Your task to perform on an android device: Open Google Chrome Image 0: 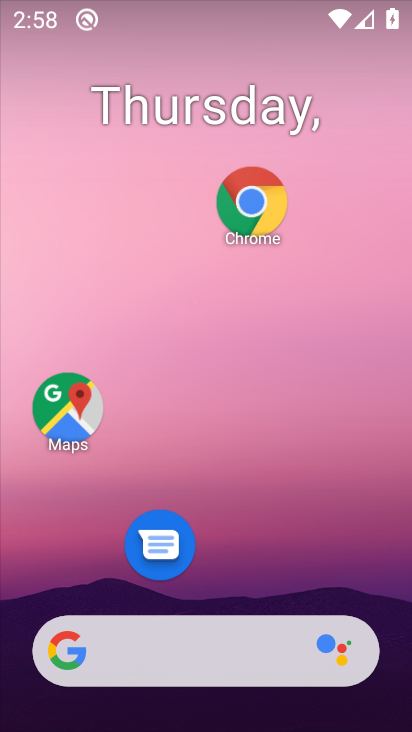
Step 0: click (237, 207)
Your task to perform on an android device: Open Google Chrome Image 1: 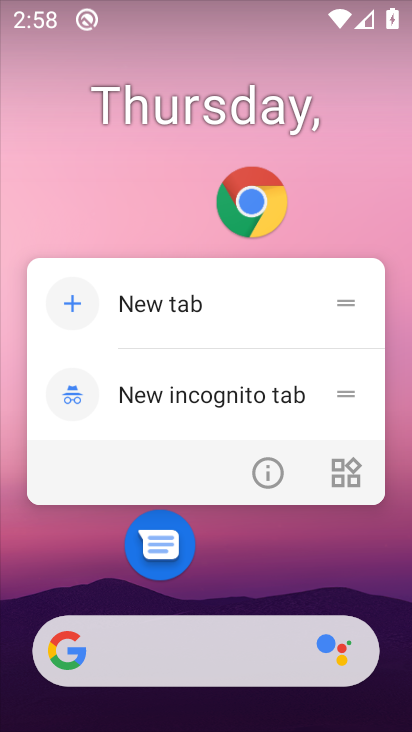
Step 1: click (256, 202)
Your task to perform on an android device: Open Google Chrome Image 2: 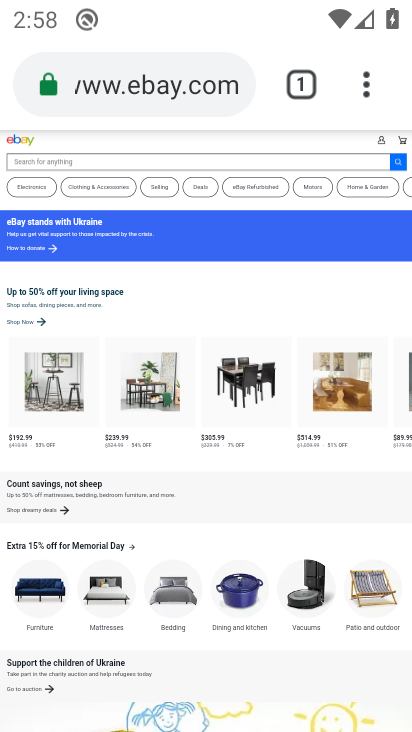
Step 2: click (306, 78)
Your task to perform on an android device: Open Google Chrome Image 3: 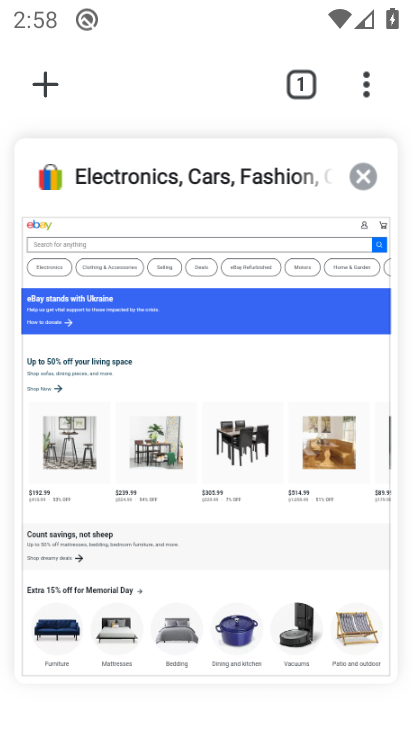
Step 3: click (356, 182)
Your task to perform on an android device: Open Google Chrome Image 4: 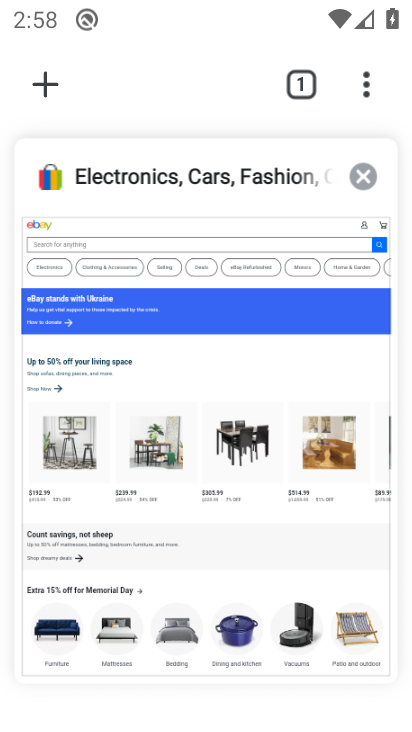
Step 4: click (298, 93)
Your task to perform on an android device: Open Google Chrome Image 5: 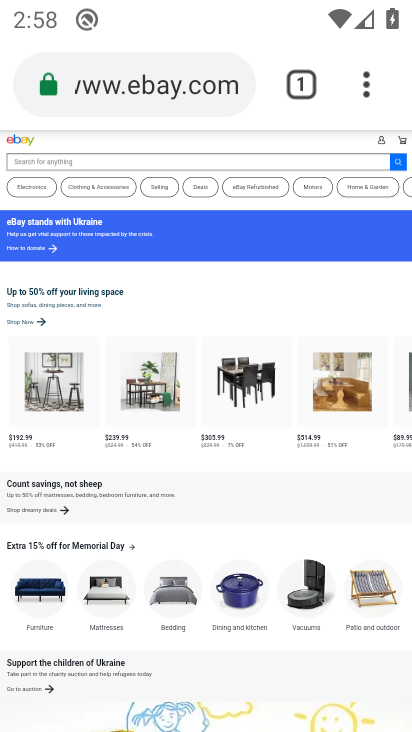
Step 5: click (299, 89)
Your task to perform on an android device: Open Google Chrome Image 6: 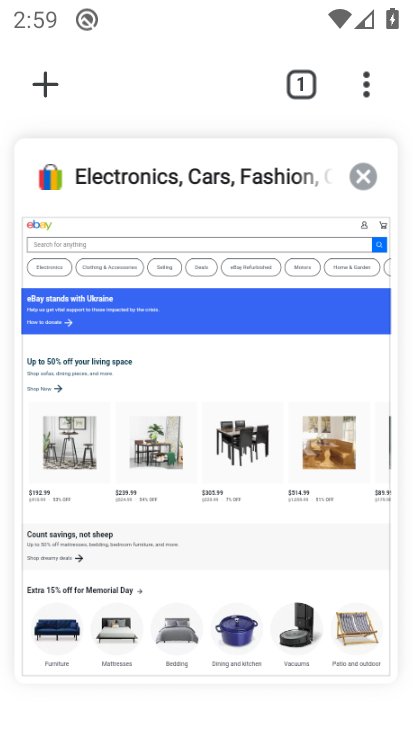
Step 6: click (366, 179)
Your task to perform on an android device: Open Google Chrome Image 7: 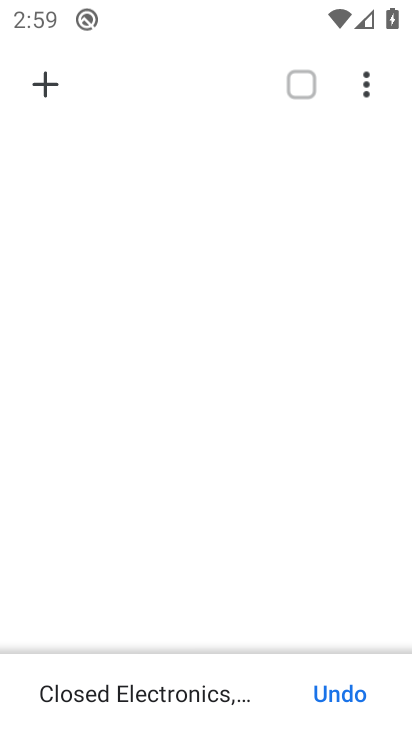
Step 7: click (41, 93)
Your task to perform on an android device: Open Google Chrome Image 8: 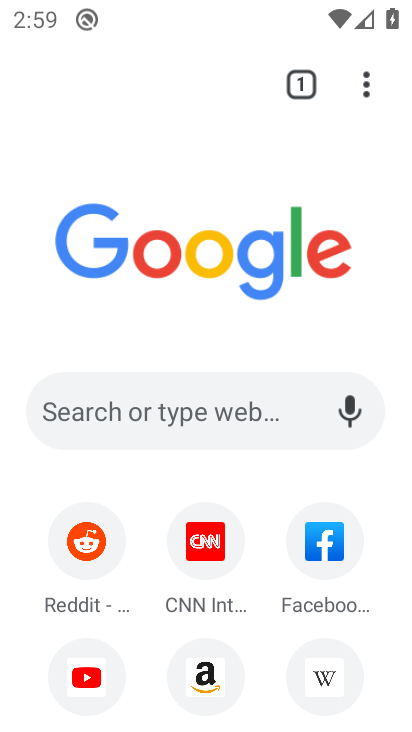
Step 8: task complete